Your task to perform on an android device: Go to location settings Image 0: 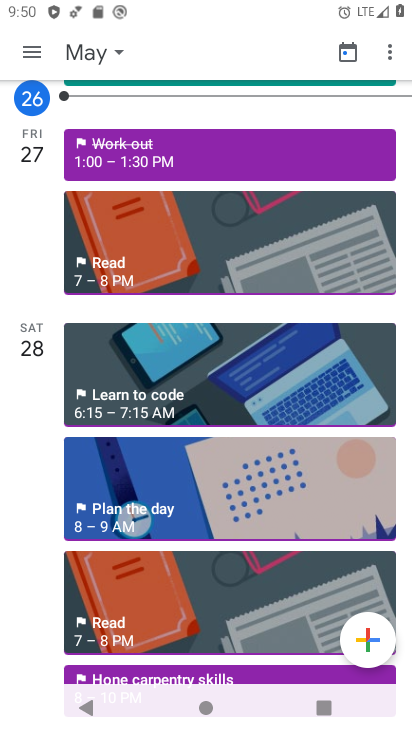
Step 0: press home button
Your task to perform on an android device: Go to location settings Image 1: 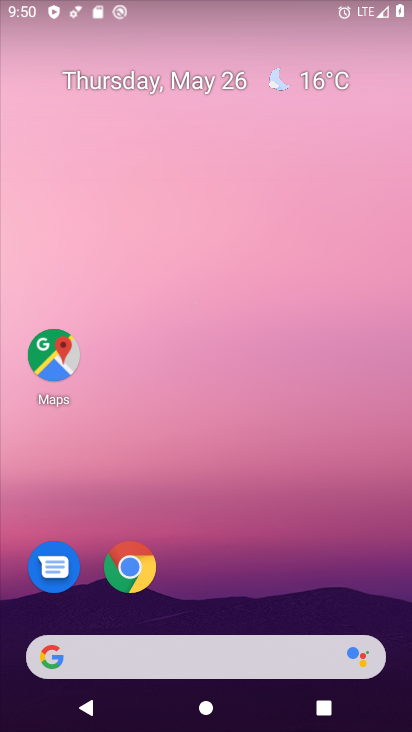
Step 1: drag from (402, 697) to (353, 112)
Your task to perform on an android device: Go to location settings Image 2: 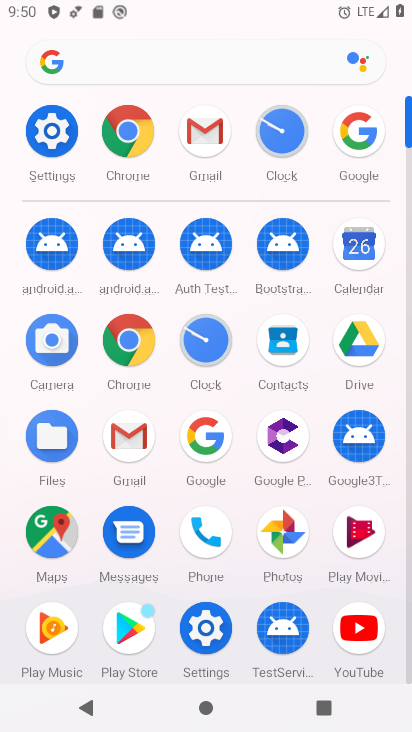
Step 2: click (38, 130)
Your task to perform on an android device: Go to location settings Image 3: 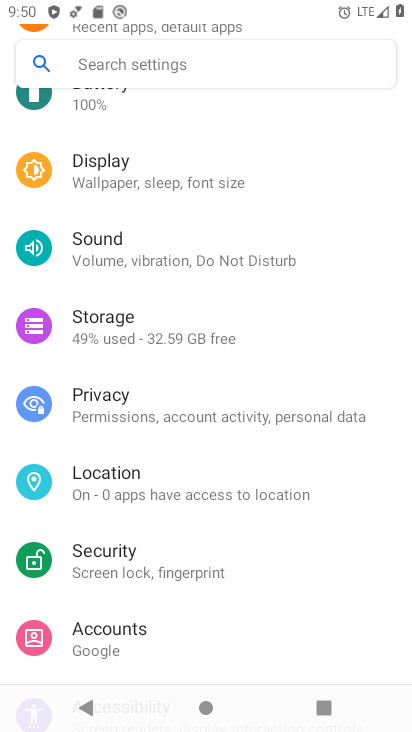
Step 3: click (101, 487)
Your task to perform on an android device: Go to location settings Image 4: 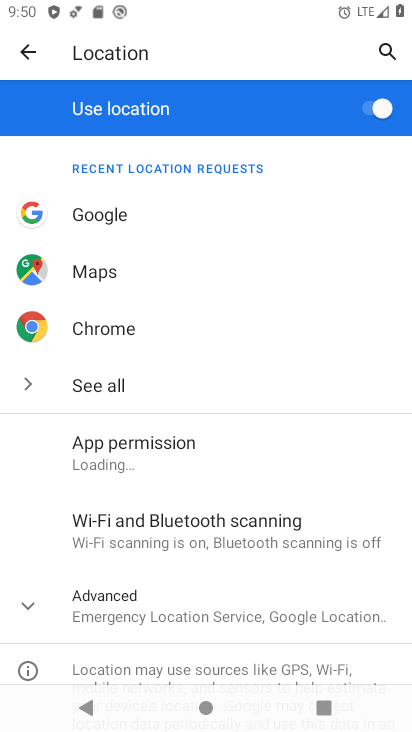
Step 4: drag from (292, 634) to (279, 312)
Your task to perform on an android device: Go to location settings Image 5: 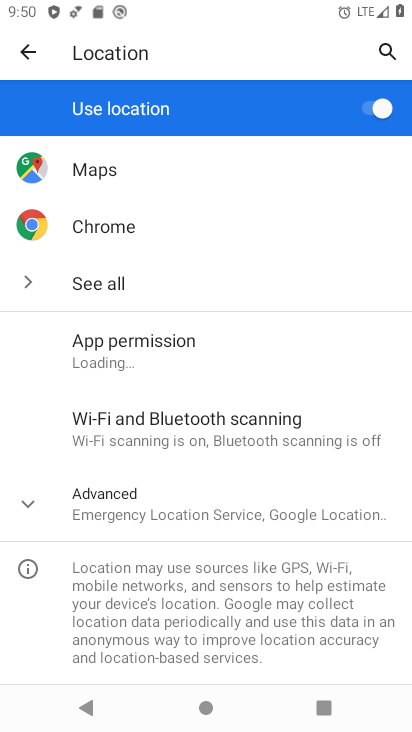
Step 5: drag from (240, 645) to (215, 320)
Your task to perform on an android device: Go to location settings Image 6: 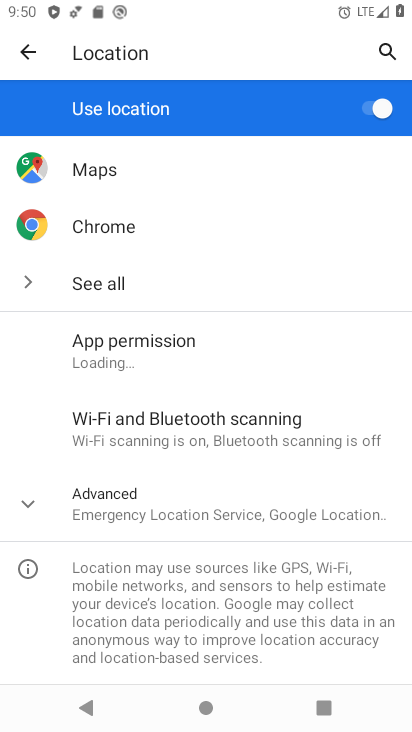
Step 6: click (24, 499)
Your task to perform on an android device: Go to location settings Image 7: 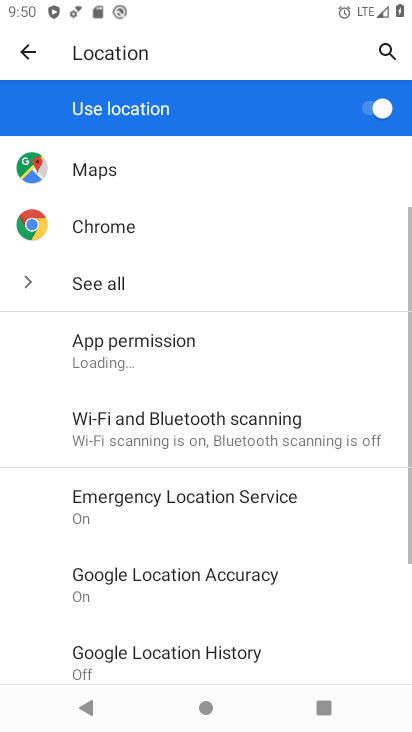
Step 7: task complete